Your task to perform on an android device: Open settings on Google Maps Image 0: 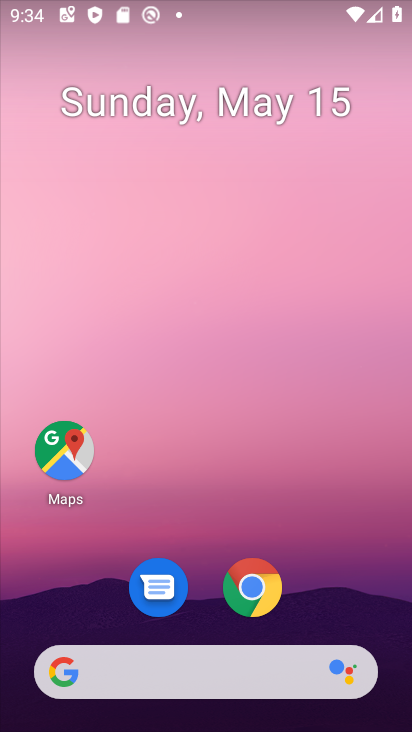
Step 0: drag from (412, 658) to (264, 90)
Your task to perform on an android device: Open settings on Google Maps Image 1: 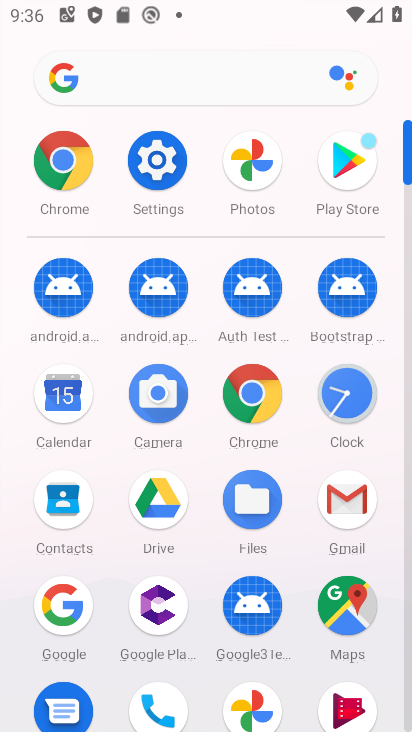
Step 1: click (351, 604)
Your task to perform on an android device: Open settings on Google Maps Image 2: 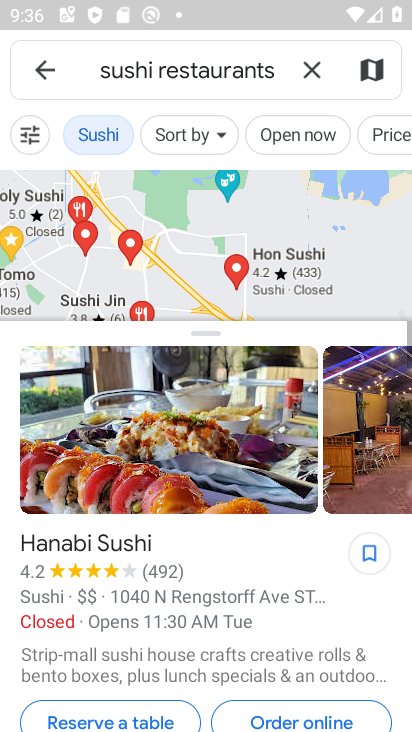
Step 2: click (301, 63)
Your task to perform on an android device: Open settings on Google Maps Image 3: 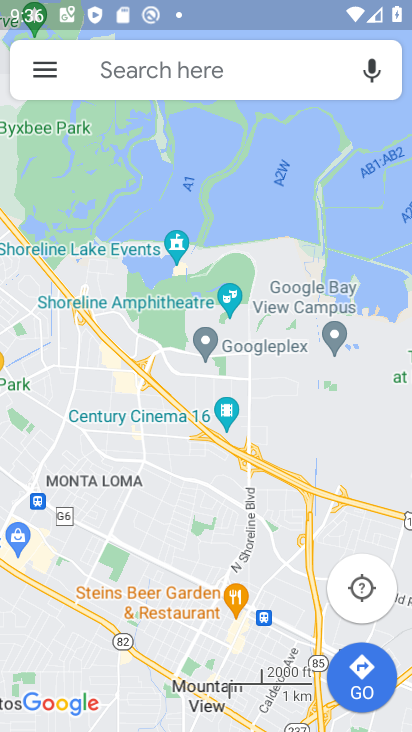
Step 3: task complete